Your task to perform on an android device: check storage Image 0: 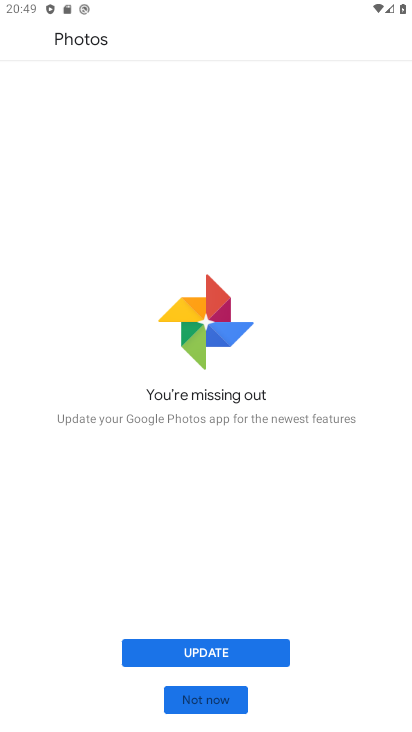
Step 0: click (217, 709)
Your task to perform on an android device: check storage Image 1: 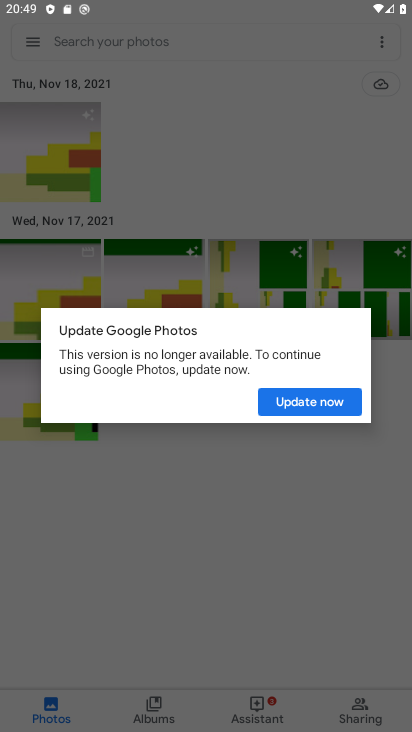
Step 1: press back button
Your task to perform on an android device: check storage Image 2: 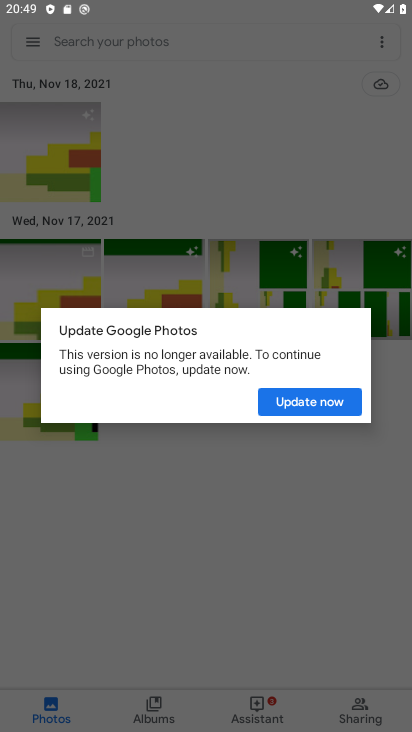
Step 2: press back button
Your task to perform on an android device: check storage Image 3: 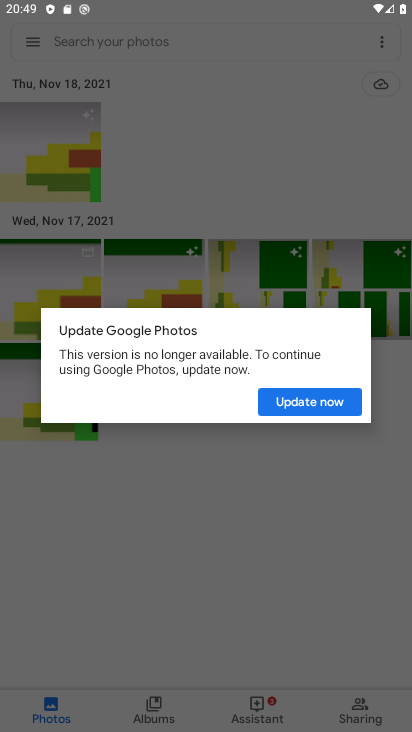
Step 3: press home button
Your task to perform on an android device: check storage Image 4: 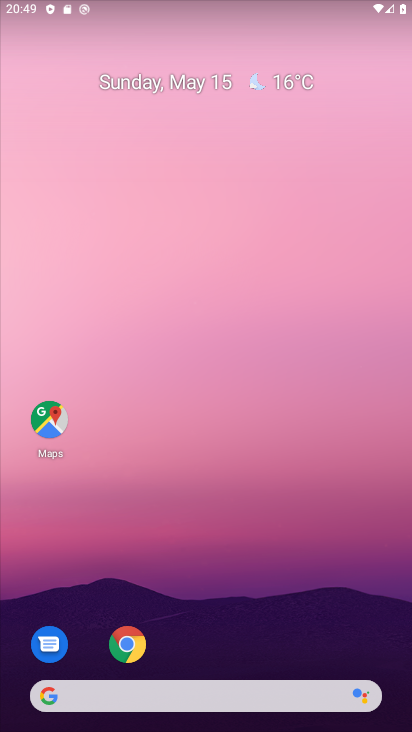
Step 4: drag from (191, 580) to (317, 66)
Your task to perform on an android device: check storage Image 5: 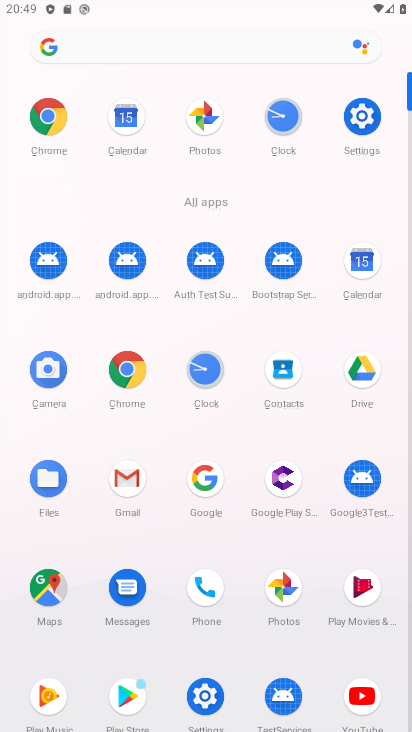
Step 5: click (357, 113)
Your task to perform on an android device: check storage Image 6: 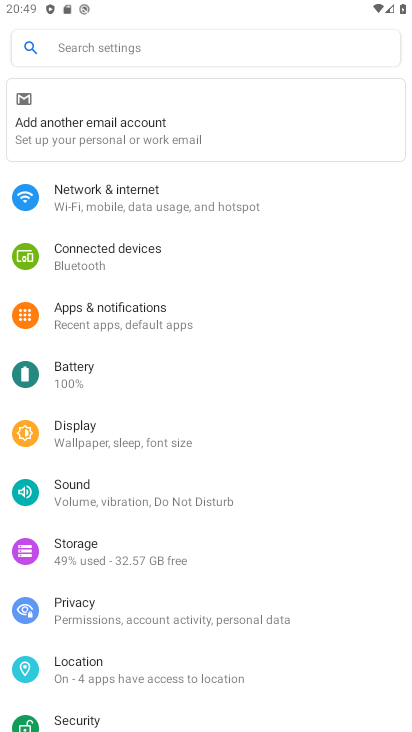
Step 6: click (71, 546)
Your task to perform on an android device: check storage Image 7: 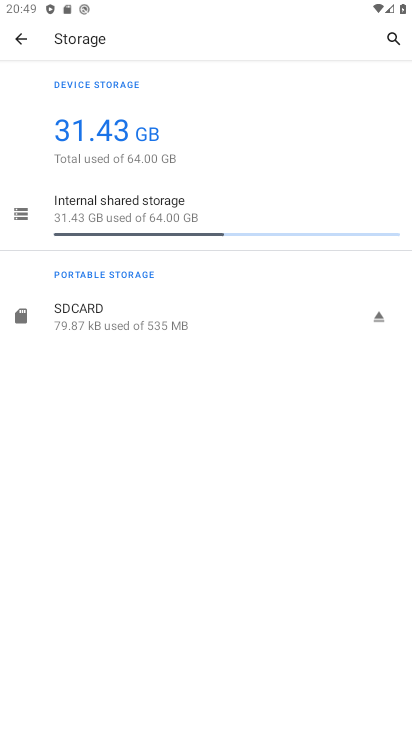
Step 7: task complete